Your task to perform on an android device: Empty the shopping cart on bestbuy.com. Image 0: 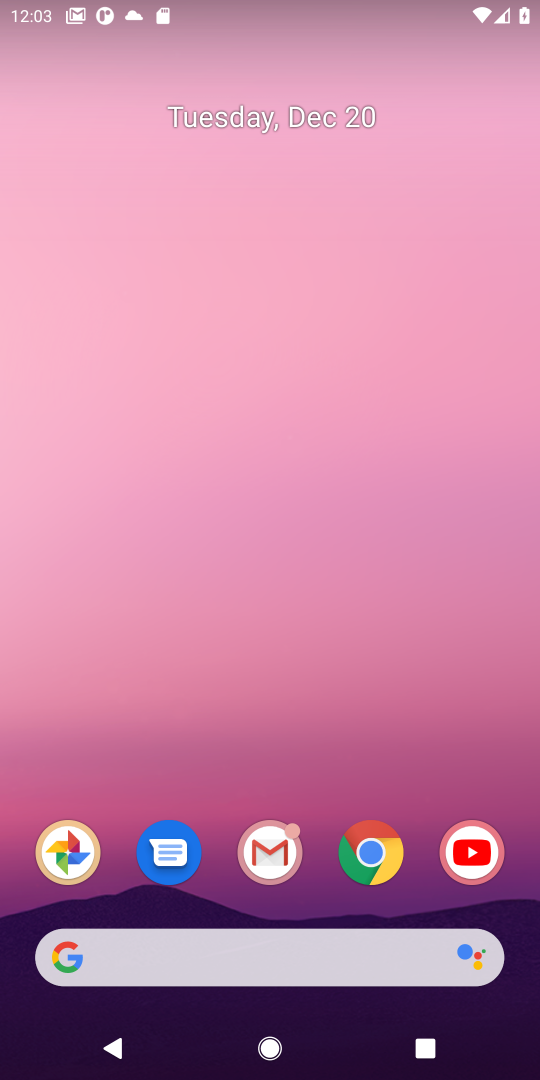
Step 0: click (377, 853)
Your task to perform on an android device: Empty the shopping cart on bestbuy.com. Image 1: 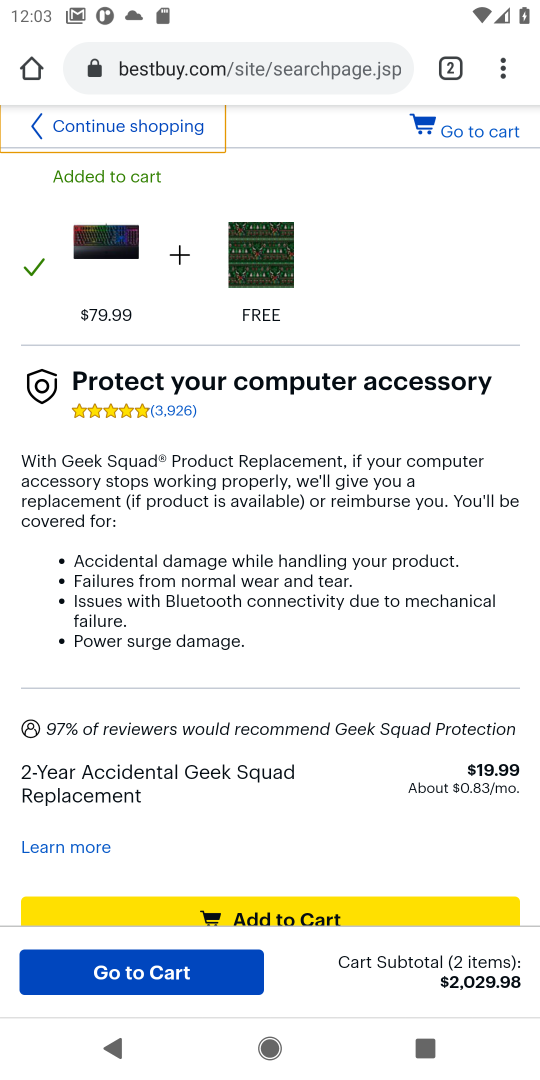
Step 1: press back button
Your task to perform on an android device: Empty the shopping cart on bestbuy.com. Image 2: 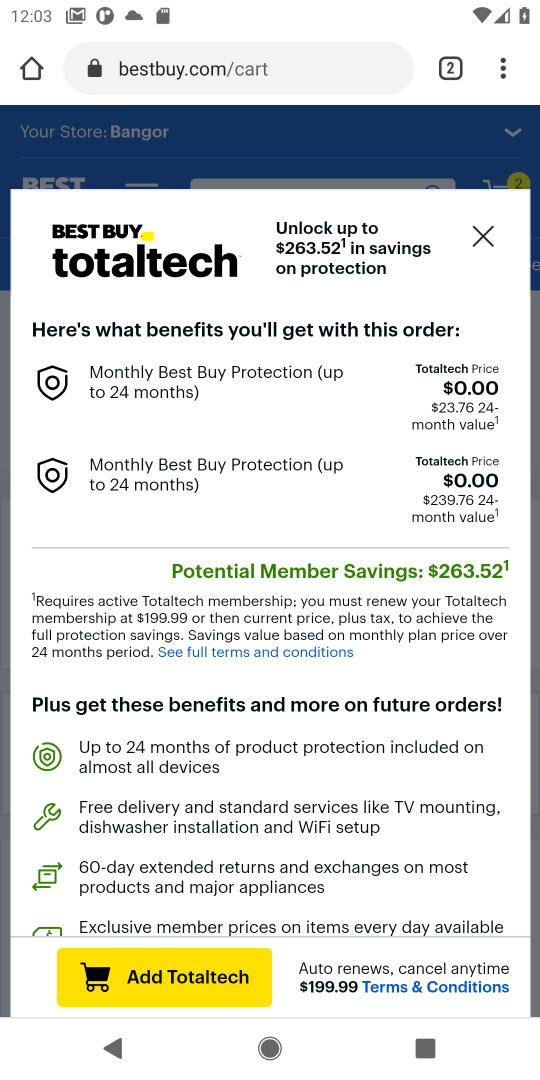
Step 2: click (505, 194)
Your task to perform on an android device: Empty the shopping cart on bestbuy.com. Image 3: 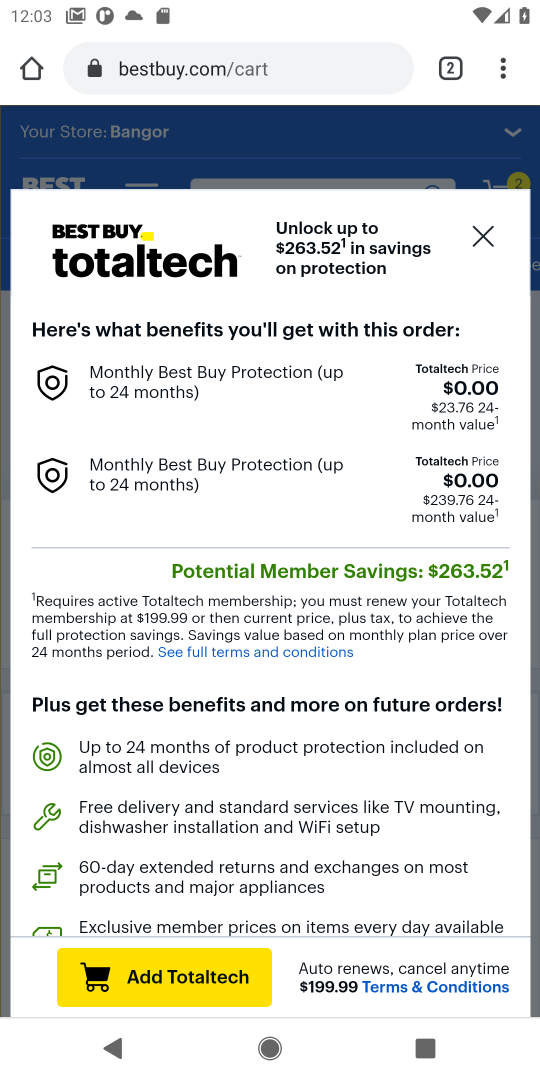
Step 3: click (488, 233)
Your task to perform on an android device: Empty the shopping cart on bestbuy.com. Image 4: 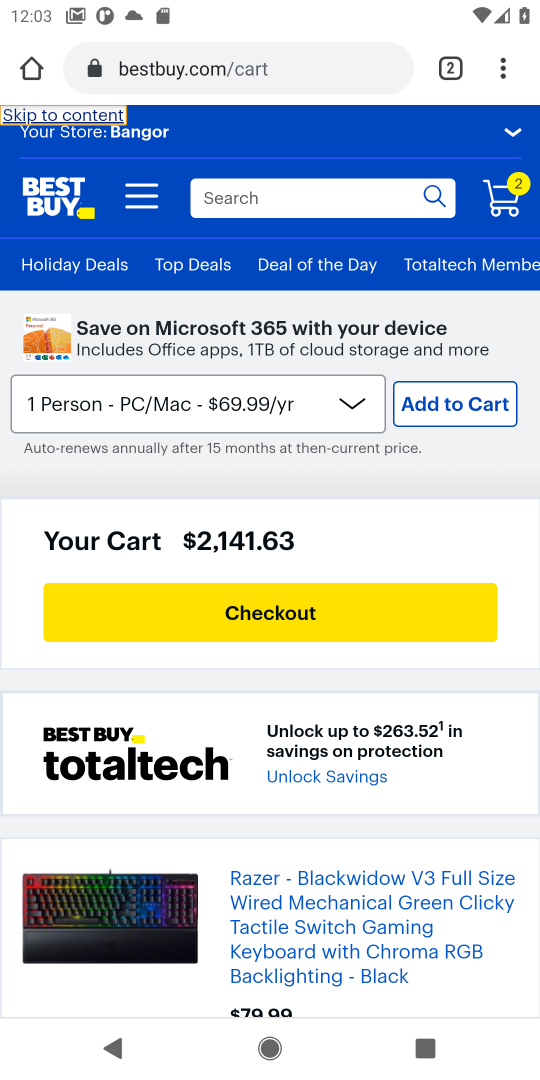
Step 4: drag from (194, 557) to (232, 235)
Your task to perform on an android device: Empty the shopping cart on bestbuy.com. Image 5: 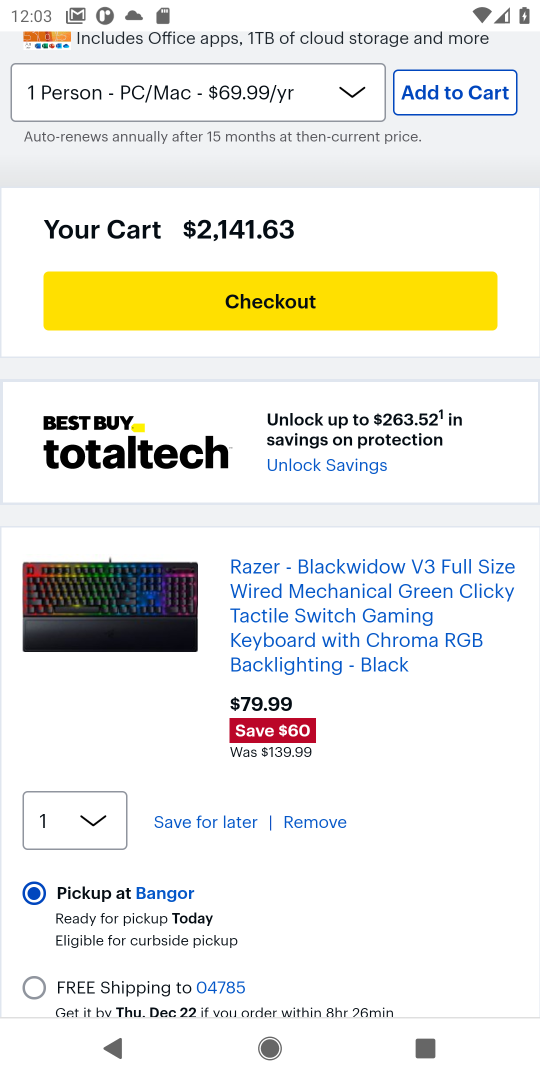
Step 5: click (323, 808)
Your task to perform on an android device: Empty the shopping cart on bestbuy.com. Image 6: 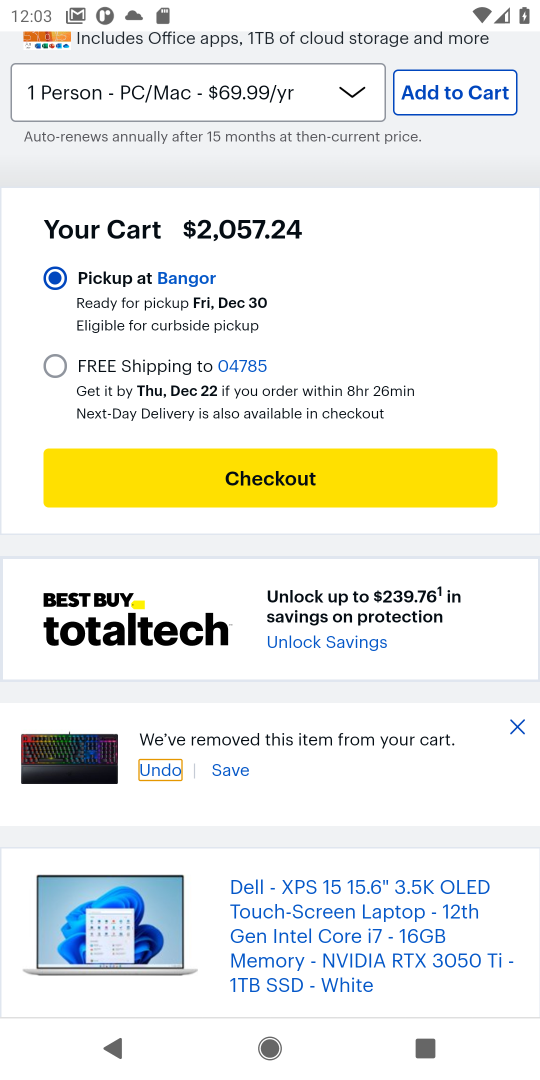
Step 6: drag from (324, 773) to (349, 487)
Your task to perform on an android device: Empty the shopping cart on bestbuy.com. Image 7: 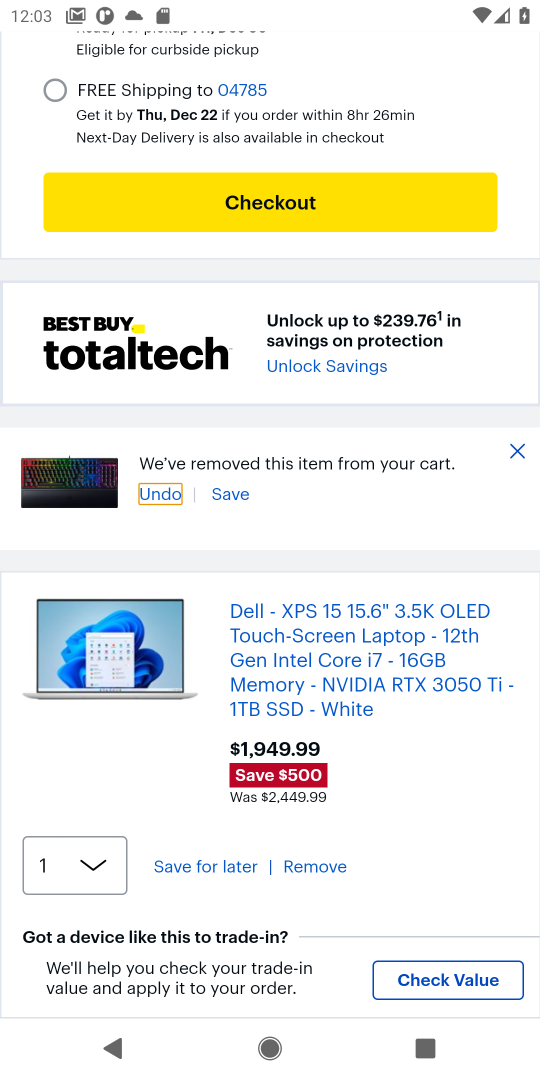
Step 7: click (312, 865)
Your task to perform on an android device: Empty the shopping cart on bestbuy.com. Image 8: 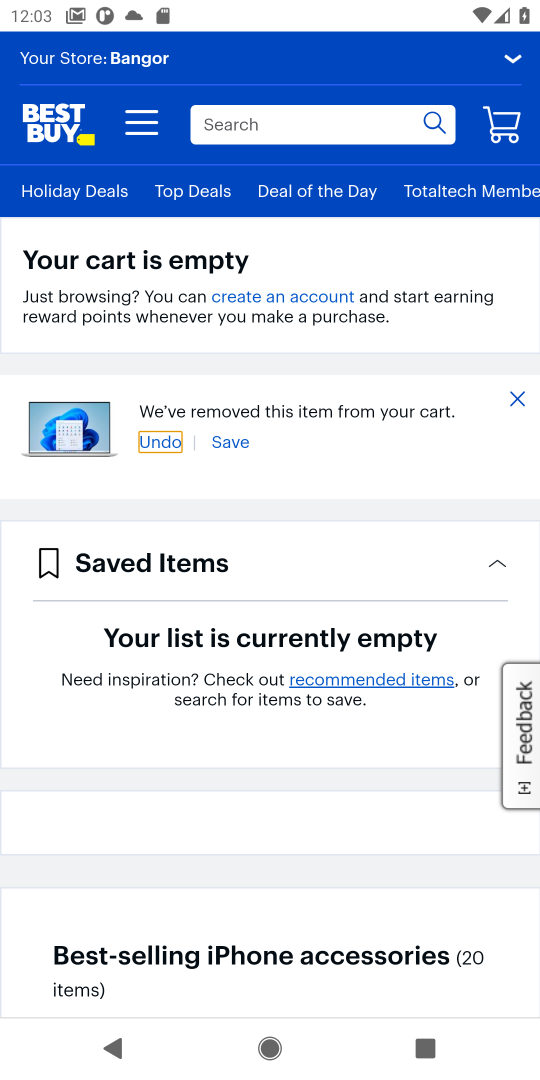
Step 8: task complete